Your task to perform on an android device: turn notification dots on Image 0: 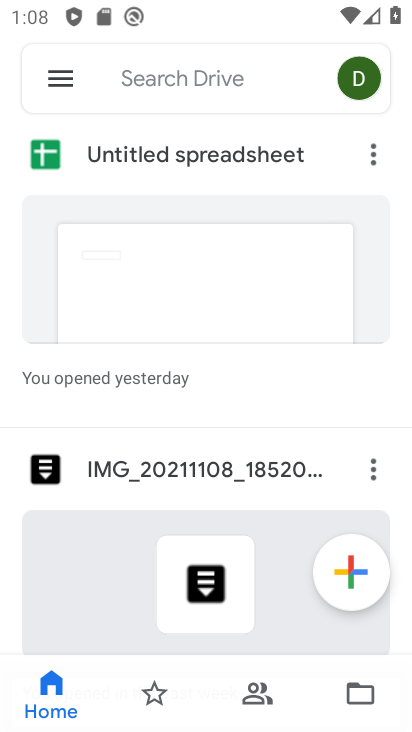
Step 0: press home button
Your task to perform on an android device: turn notification dots on Image 1: 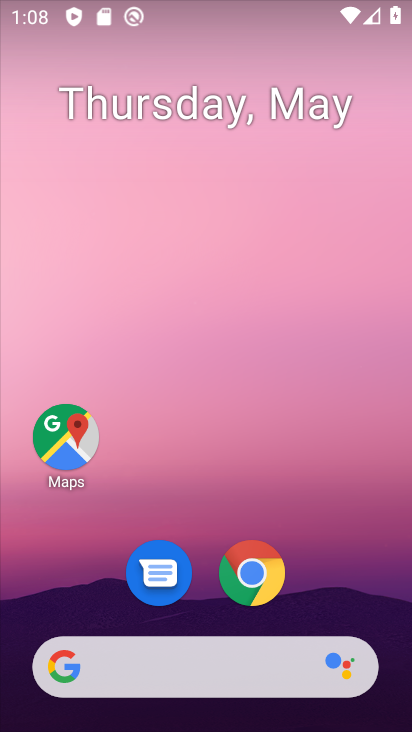
Step 1: drag from (307, 564) to (251, 69)
Your task to perform on an android device: turn notification dots on Image 2: 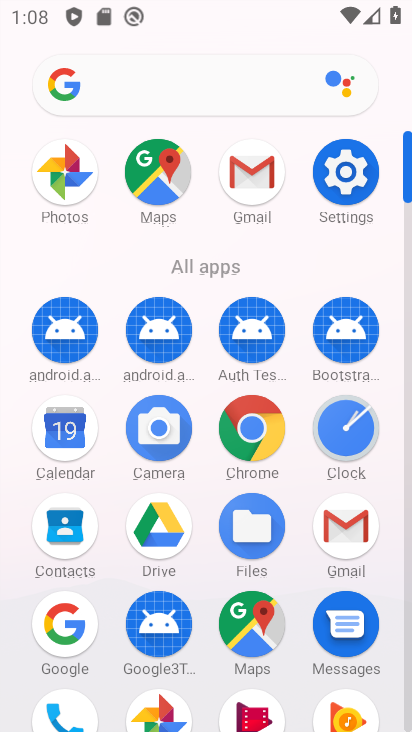
Step 2: click (335, 178)
Your task to perform on an android device: turn notification dots on Image 3: 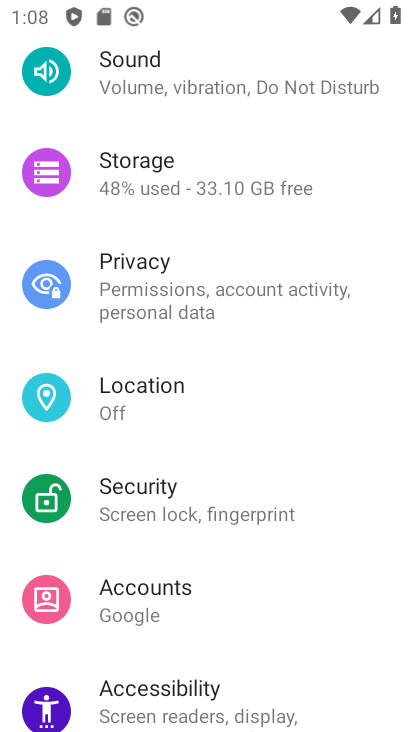
Step 3: drag from (332, 639) to (297, 144)
Your task to perform on an android device: turn notification dots on Image 4: 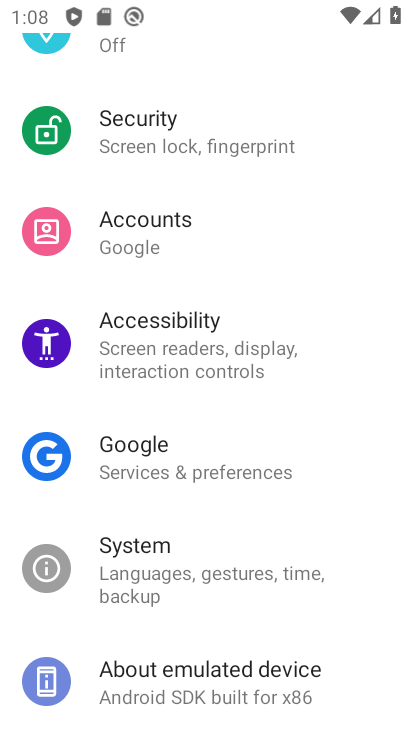
Step 4: drag from (240, 643) to (244, 305)
Your task to perform on an android device: turn notification dots on Image 5: 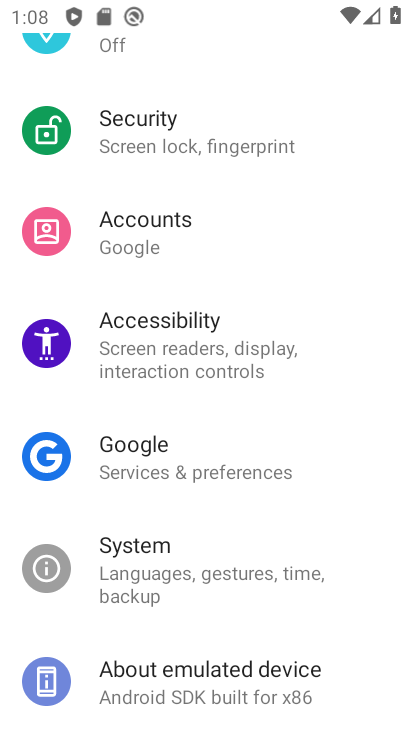
Step 5: drag from (246, 108) to (238, 621)
Your task to perform on an android device: turn notification dots on Image 6: 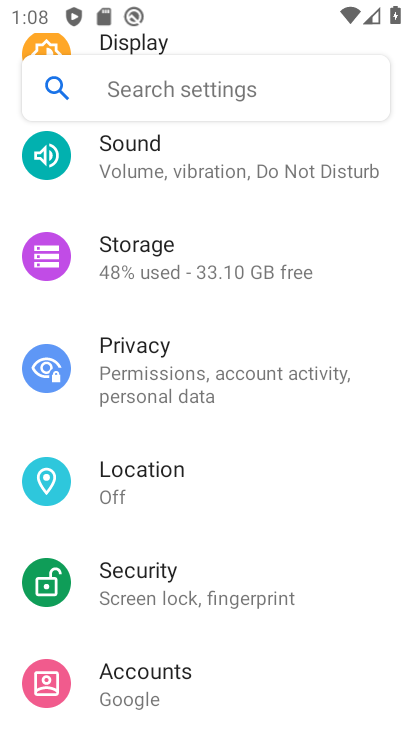
Step 6: drag from (233, 124) to (229, 655)
Your task to perform on an android device: turn notification dots on Image 7: 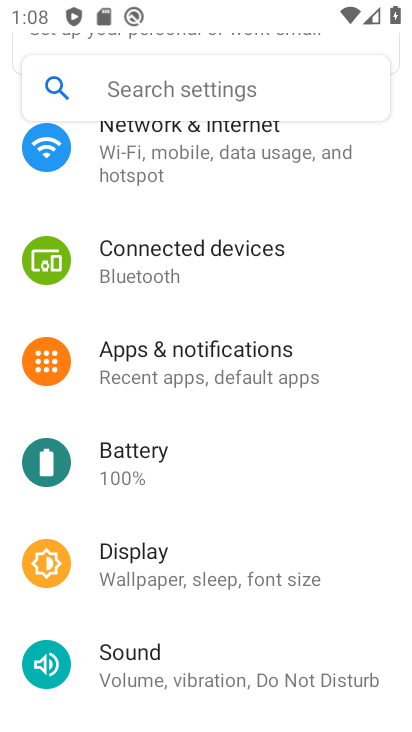
Step 7: click (225, 193)
Your task to perform on an android device: turn notification dots on Image 8: 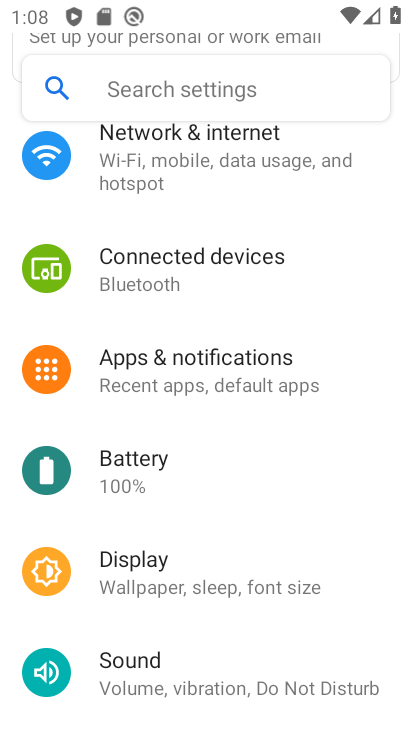
Step 8: click (209, 368)
Your task to perform on an android device: turn notification dots on Image 9: 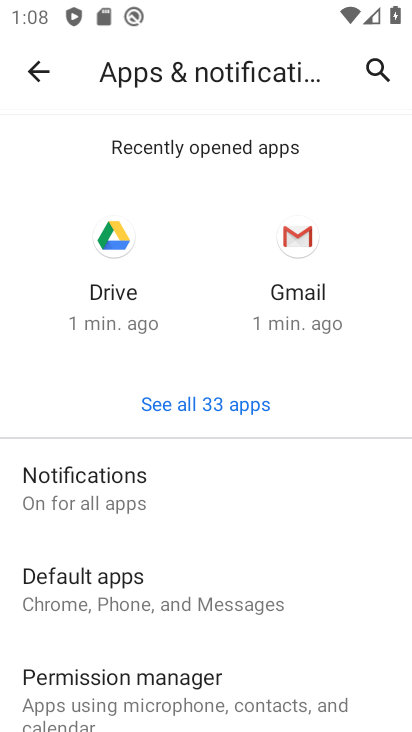
Step 9: click (100, 483)
Your task to perform on an android device: turn notification dots on Image 10: 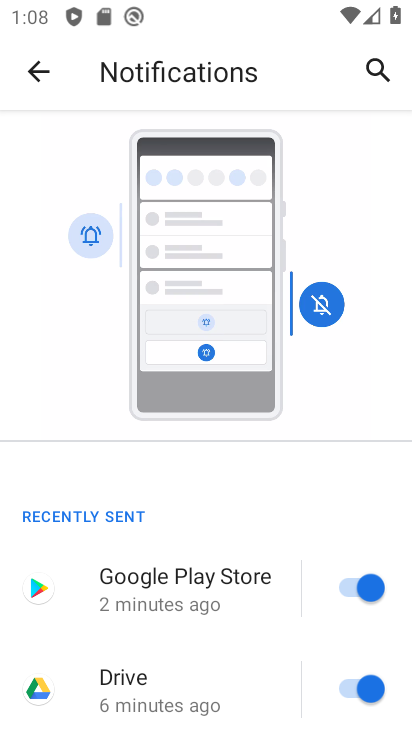
Step 10: drag from (264, 674) to (258, 329)
Your task to perform on an android device: turn notification dots on Image 11: 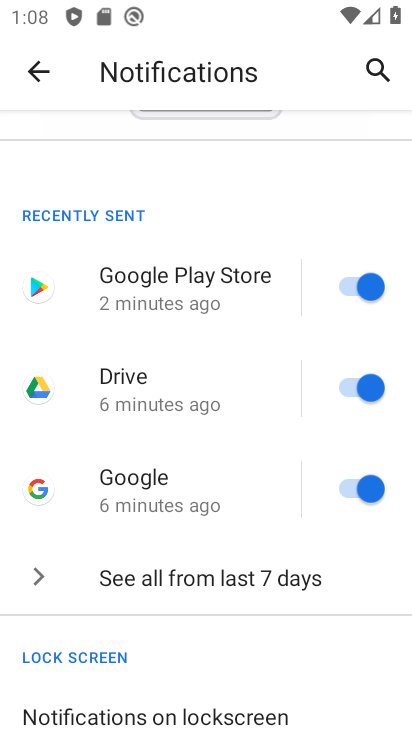
Step 11: drag from (224, 615) to (220, 292)
Your task to perform on an android device: turn notification dots on Image 12: 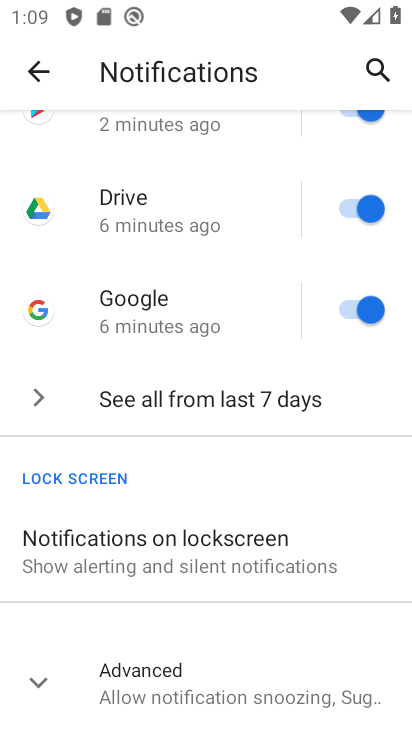
Step 12: click (164, 682)
Your task to perform on an android device: turn notification dots on Image 13: 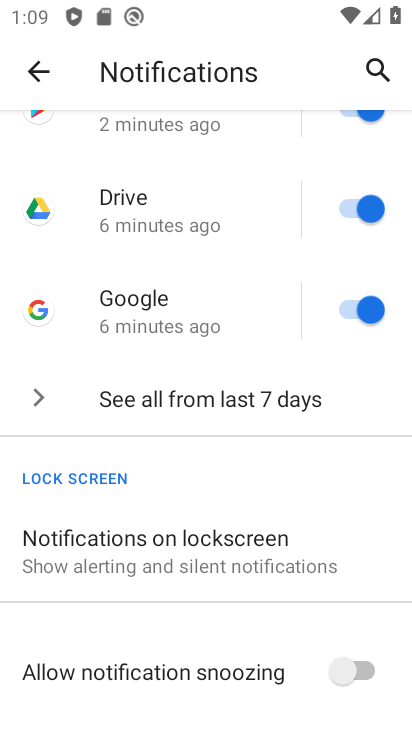
Step 13: task complete